Your task to perform on an android device: change keyboard looks Image 0: 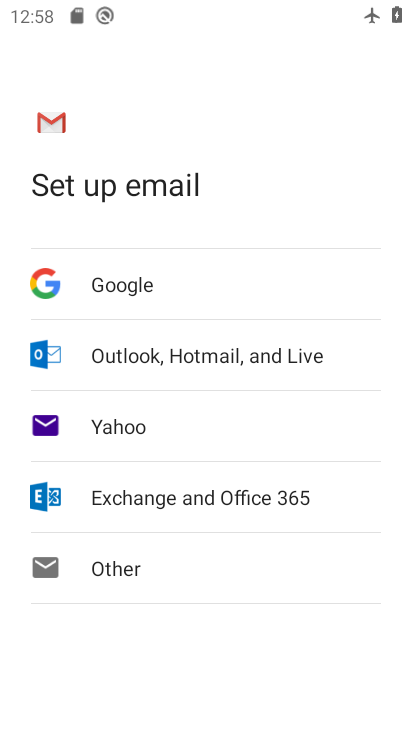
Step 0: press home button
Your task to perform on an android device: change keyboard looks Image 1: 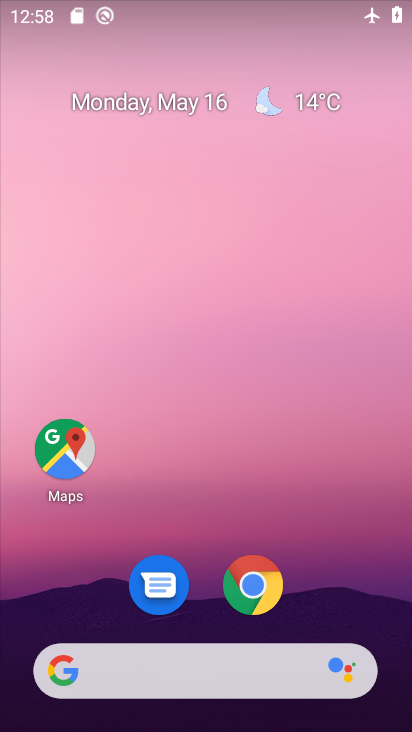
Step 1: drag from (218, 513) to (300, 15)
Your task to perform on an android device: change keyboard looks Image 2: 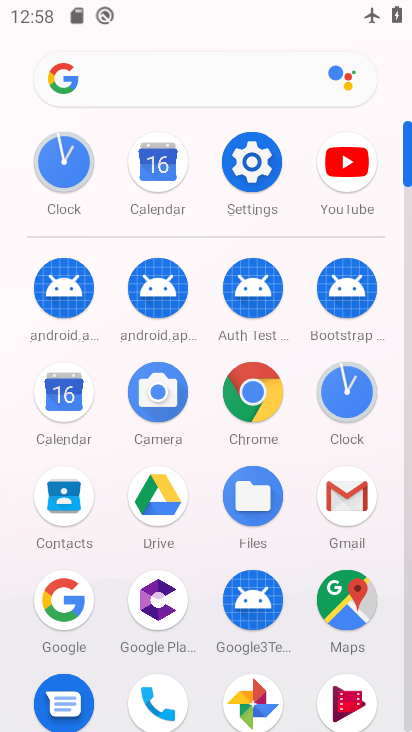
Step 2: click (271, 156)
Your task to perform on an android device: change keyboard looks Image 3: 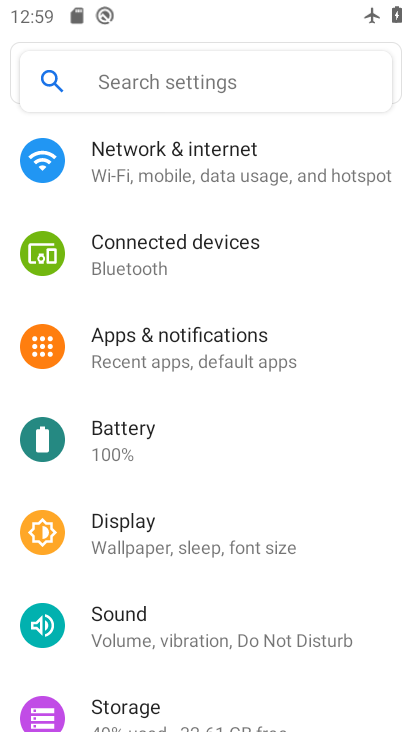
Step 3: drag from (219, 592) to (270, 0)
Your task to perform on an android device: change keyboard looks Image 4: 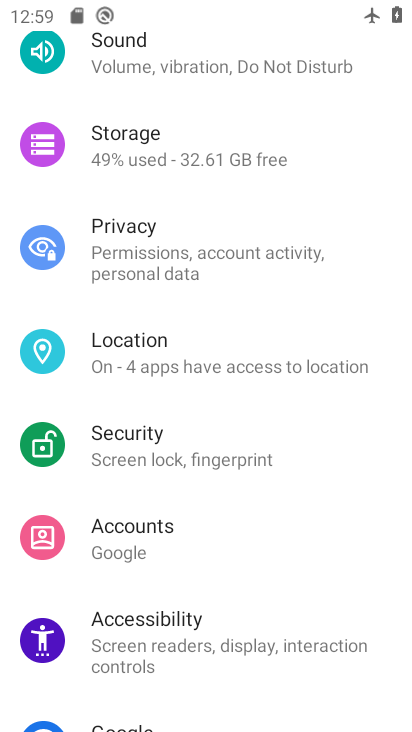
Step 4: drag from (187, 569) to (219, 149)
Your task to perform on an android device: change keyboard looks Image 5: 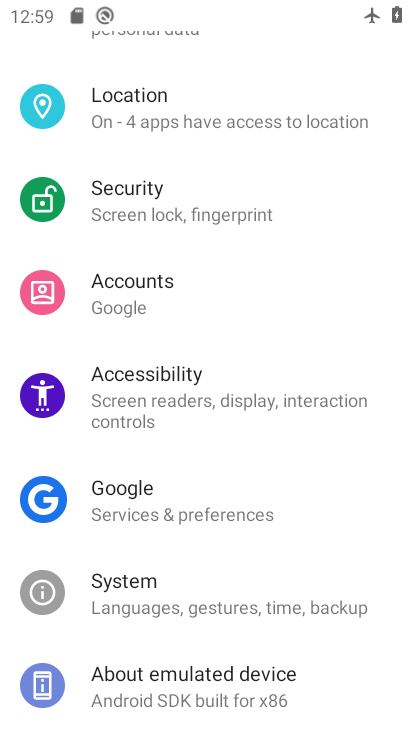
Step 5: click (231, 590)
Your task to perform on an android device: change keyboard looks Image 6: 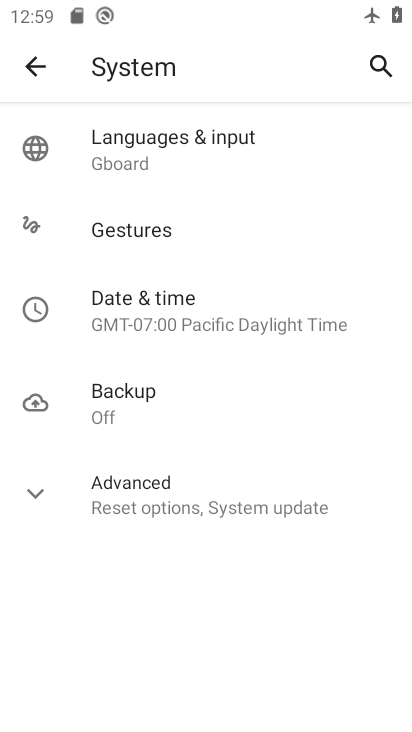
Step 6: click (191, 156)
Your task to perform on an android device: change keyboard looks Image 7: 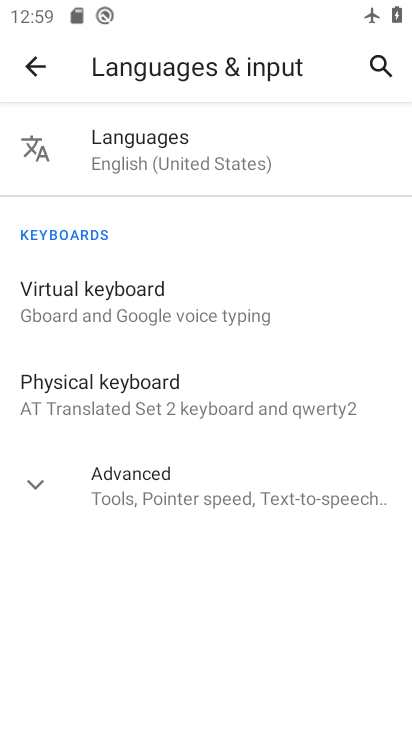
Step 7: click (158, 300)
Your task to perform on an android device: change keyboard looks Image 8: 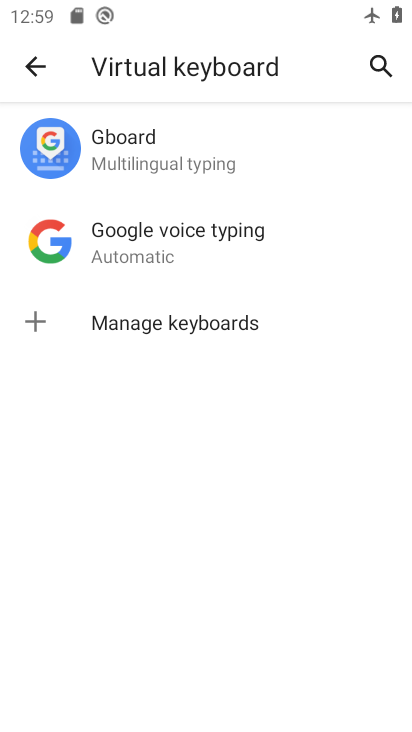
Step 8: click (168, 153)
Your task to perform on an android device: change keyboard looks Image 9: 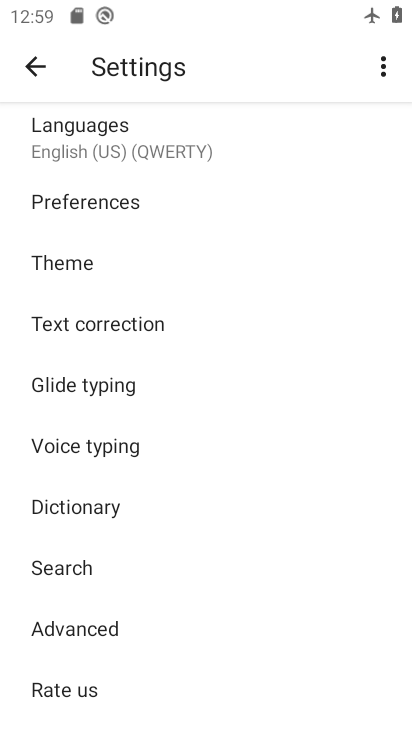
Step 9: click (85, 266)
Your task to perform on an android device: change keyboard looks Image 10: 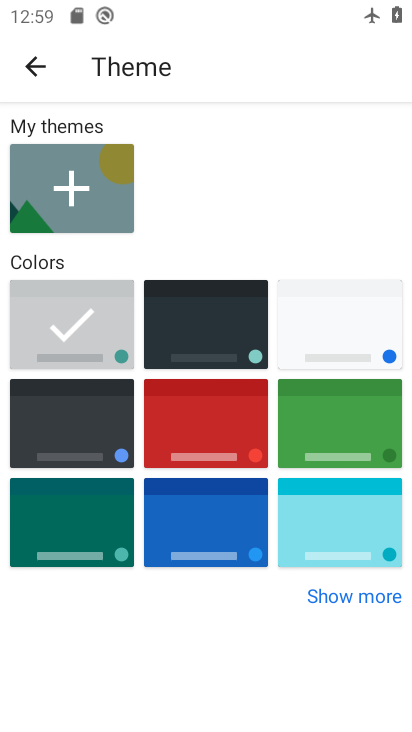
Step 10: click (224, 419)
Your task to perform on an android device: change keyboard looks Image 11: 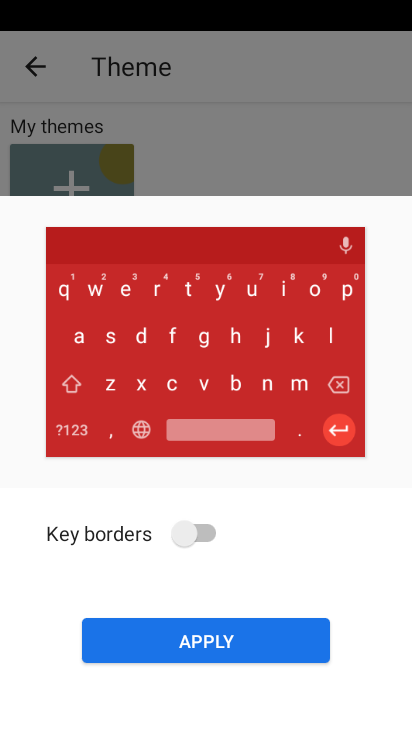
Step 11: click (206, 529)
Your task to perform on an android device: change keyboard looks Image 12: 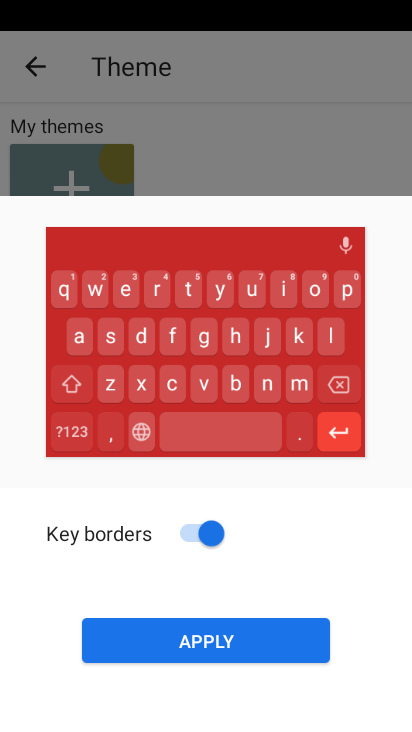
Step 12: click (216, 631)
Your task to perform on an android device: change keyboard looks Image 13: 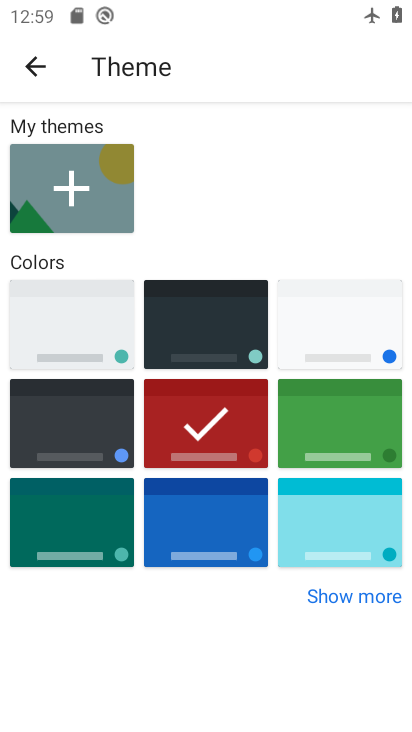
Step 13: task complete